Your task to perform on an android device: turn off improve location accuracy Image 0: 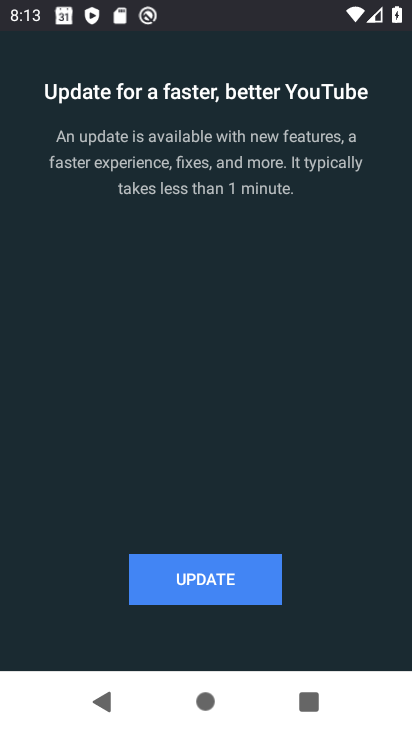
Step 0: press home button
Your task to perform on an android device: turn off improve location accuracy Image 1: 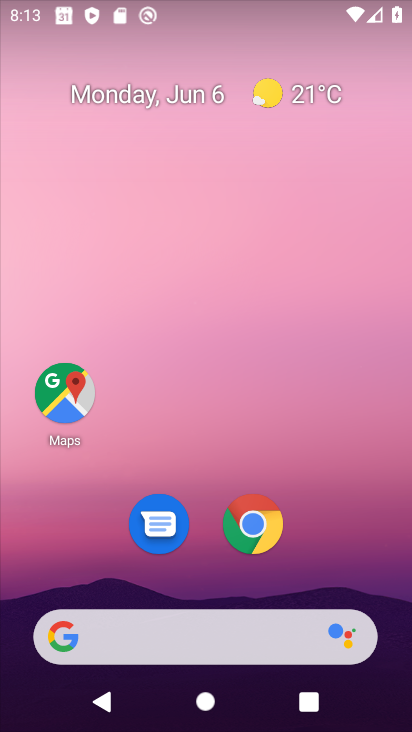
Step 1: drag from (307, 511) to (278, 0)
Your task to perform on an android device: turn off improve location accuracy Image 2: 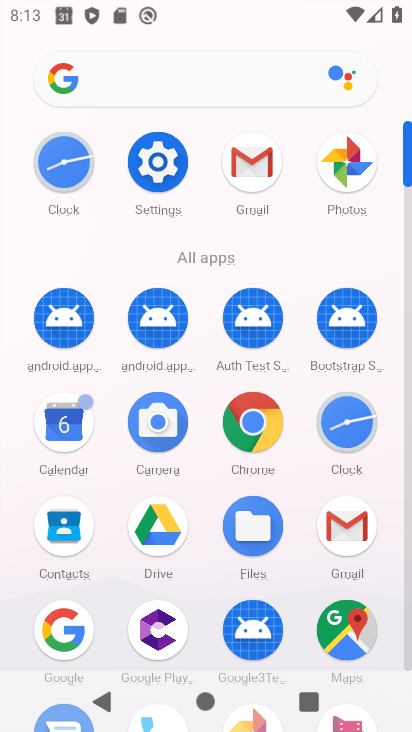
Step 2: click (166, 169)
Your task to perform on an android device: turn off improve location accuracy Image 3: 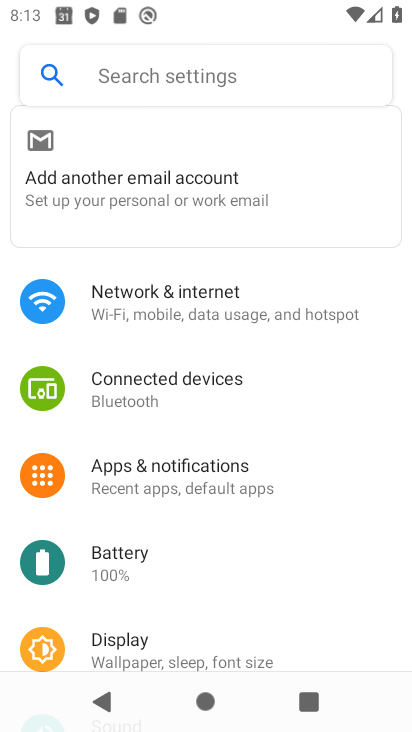
Step 3: drag from (212, 516) to (189, 113)
Your task to perform on an android device: turn off improve location accuracy Image 4: 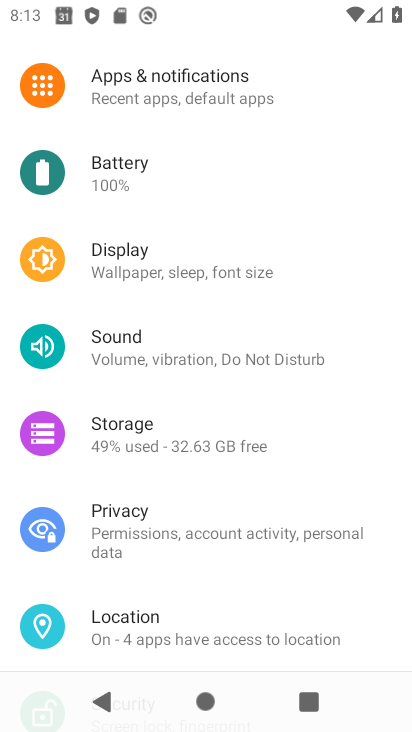
Step 4: click (179, 616)
Your task to perform on an android device: turn off improve location accuracy Image 5: 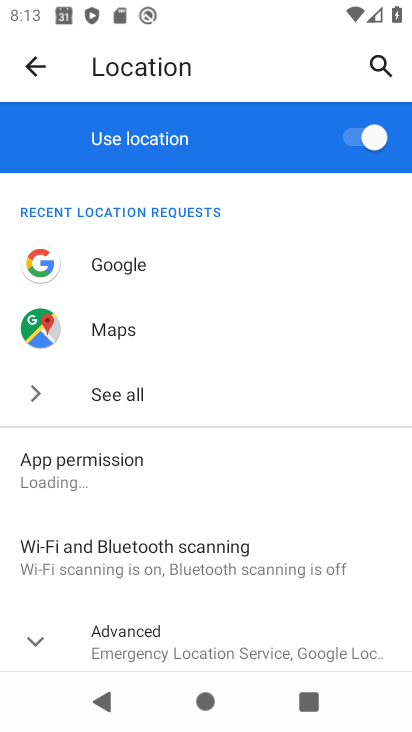
Step 5: click (25, 625)
Your task to perform on an android device: turn off improve location accuracy Image 6: 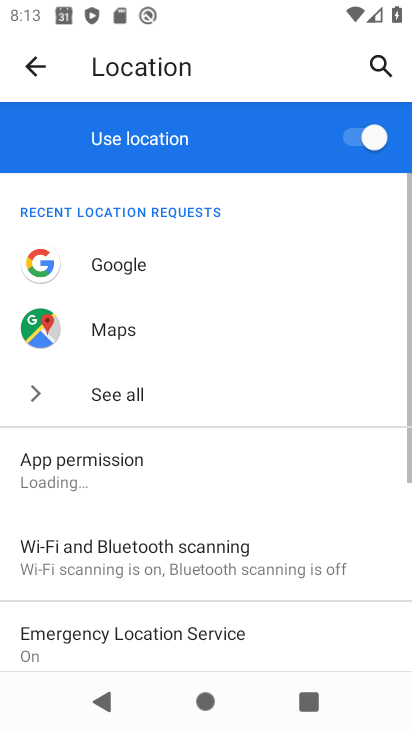
Step 6: drag from (194, 515) to (199, 225)
Your task to perform on an android device: turn off improve location accuracy Image 7: 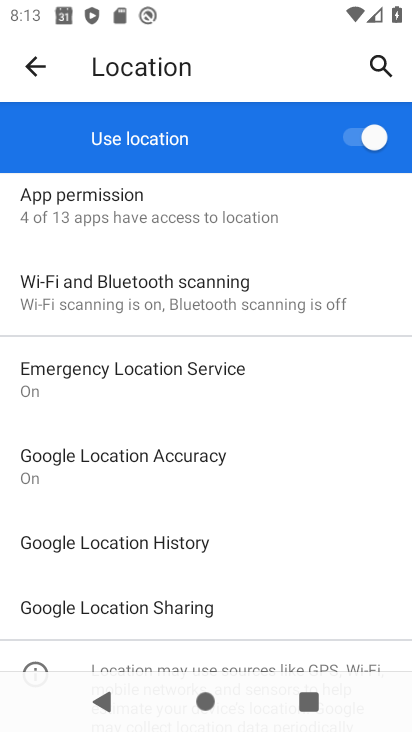
Step 7: click (135, 483)
Your task to perform on an android device: turn off improve location accuracy Image 8: 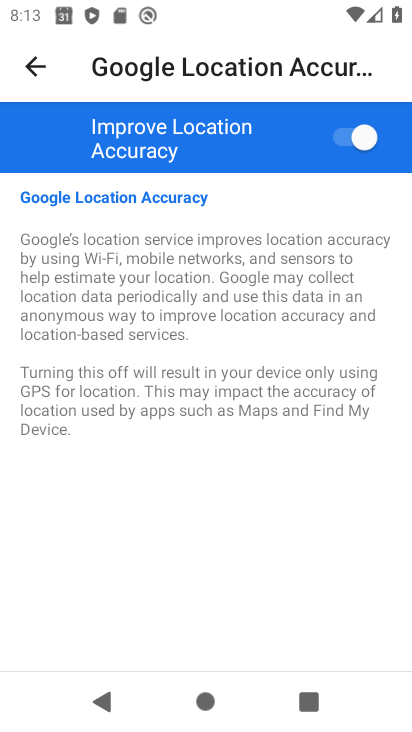
Step 8: click (356, 136)
Your task to perform on an android device: turn off improve location accuracy Image 9: 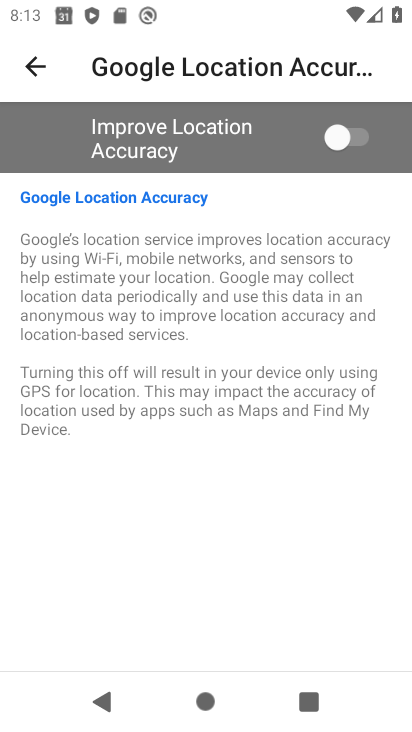
Step 9: task complete